Your task to perform on an android device: Search for dell xps on amazon, select the first entry, add it to the cart, then select checkout. Image 0: 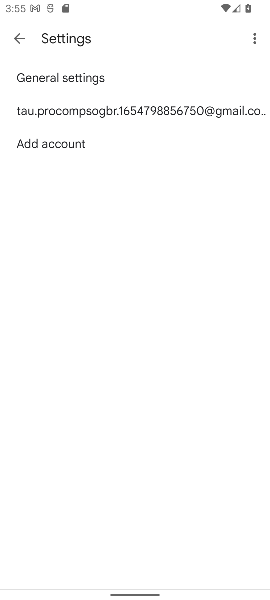
Step 0: press home button
Your task to perform on an android device: Search for dell xps on amazon, select the first entry, add it to the cart, then select checkout. Image 1: 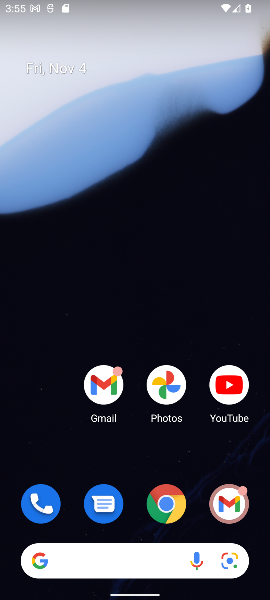
Step 1: click (169, 511)
Your task to perform on an android device: Search for dell xps on amazon, select the first entry, add it to the cart, then select checkout. Image 2: 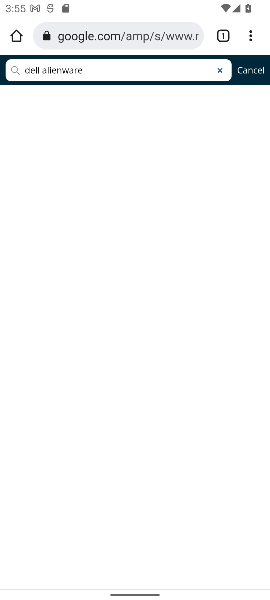
Step 2: click (110, 41)
Your task to perform on an android device: Search for dell xps on amazon, select the first entry, add it to the cart, then select checkout. Image 3: 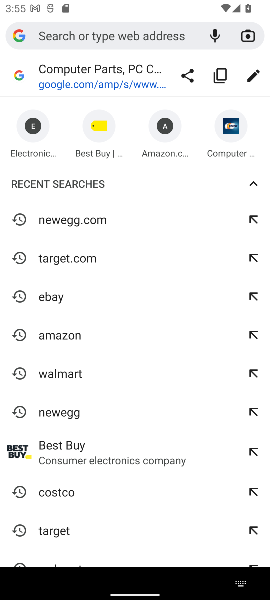
Step 3: click (66, 336)
Your task to perform on an android device: Search for dell xps on amazon, select the first entry, add it to the cart, then select checkout. Image 4: 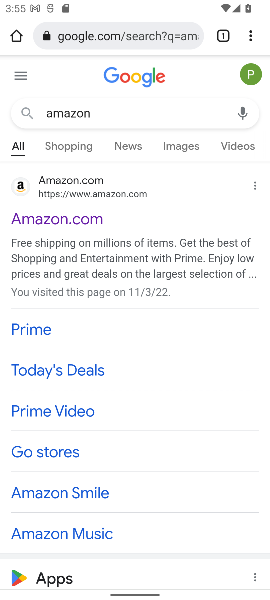
Step 4: click (67, 227)
Your task to perform on an android device: Search for dell xps on amazon, select the first entry, add it to the cart, then select checkout. Image 5: 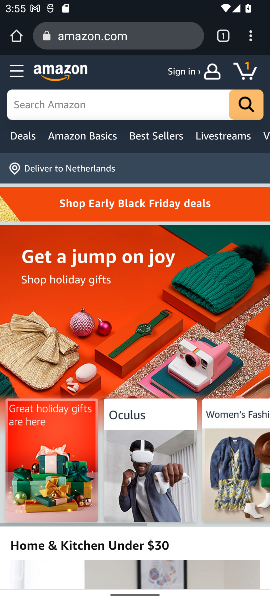
Step 5: click (88, 109)
Your task to perform on an android device: Search for dell xps on amazon, select the first entry, add it to the cart, then select checkout. Image 6: 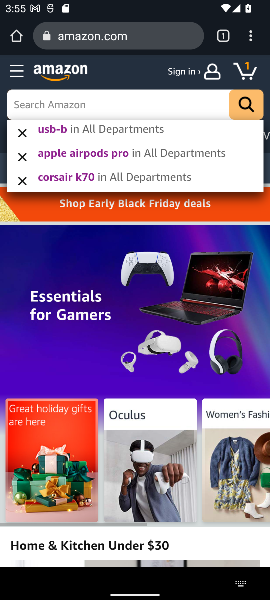
Step 6: type "dell xps"
Your task to perform on an android device: Search for dell xps on amazon, select the first entry, add it to the cart, then select checkout. Image 7: 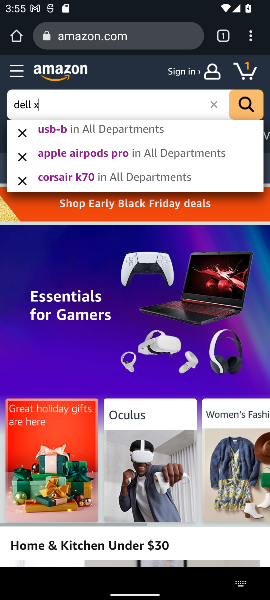
Step 7: type ""
Your task to perform on an android device: Search for dell xps on amazon, select the first entry, add it to the cart, then select checkout. Image 8: 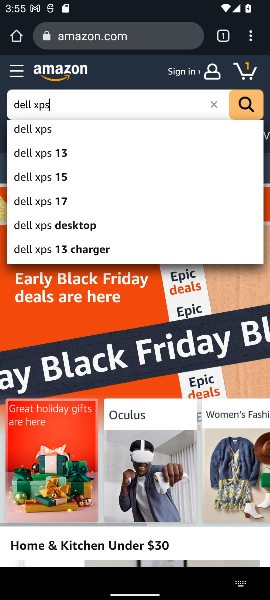
Step 8: click (42, 134)
Your task to perform on an android device: Search for dell xps on amazon, select the first entry, add it to the cart, then select checkout. Image 9: 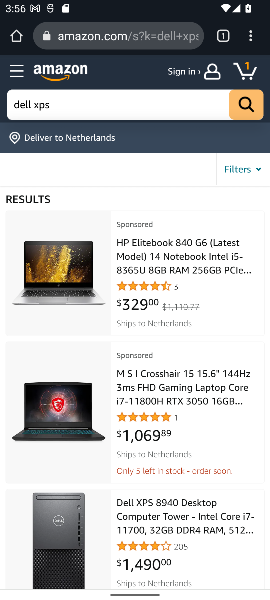
Step 9: task complete